Your task to perform on an android device: toggle javascript in the chrome app Image 0: 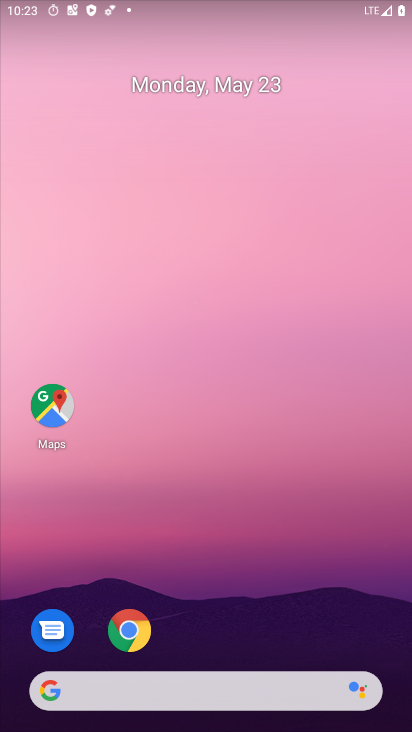
Step 0: click (131, 636)
Your task to perform on an android device: toggle javascript in the chrome app Image 1: 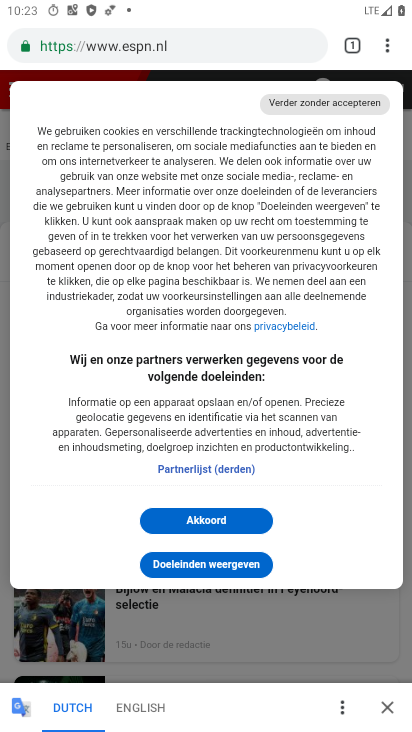
Step 1: click (384, 49)
Your task to perform on an android device: toggle javascript in the chrome app Image 2: 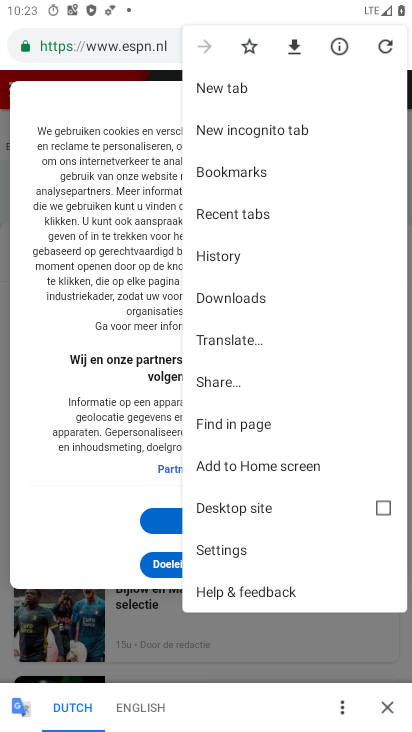
Step 2: click (224, 556)
Your task to perform on an android device: toggle javascript in the chrome app Image 3: 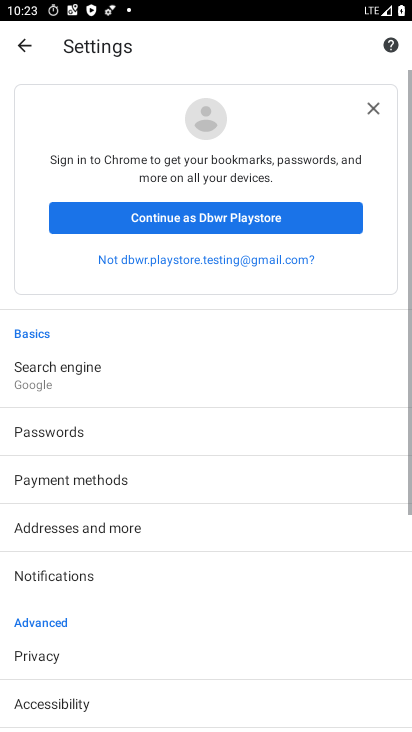
Step 3: drag from (166, 659) to (149, 201)
Your task to perform on an android device: toggle javascript in the chrome app Image 4: 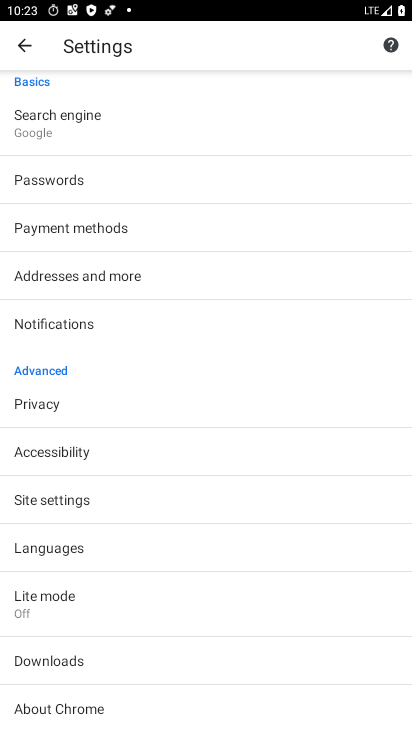
Step 4: click (70, 494)
Your task to perform on an android device: toggle javascript in the chrome app Image 5: 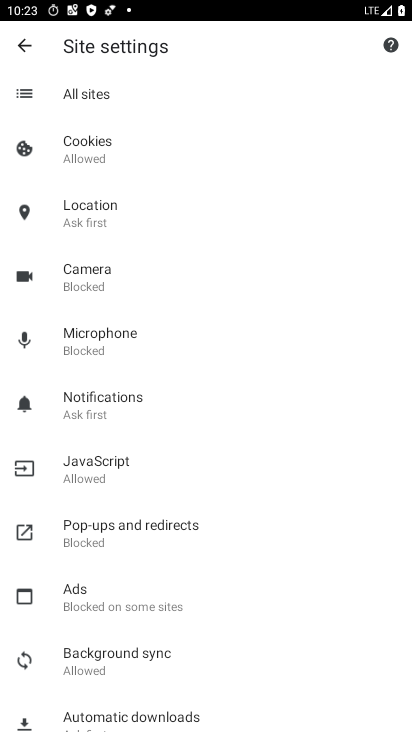
Step 5: click (89, 470)
Your task to perform on an android device: toggle javascript in the chrome app Image 6: 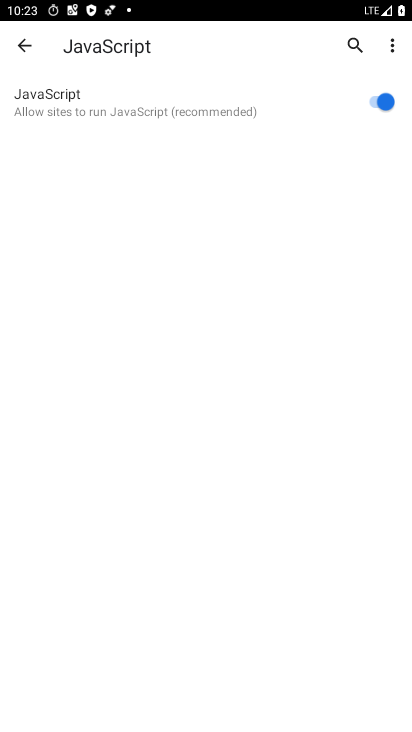
Step 6: click (380, 98)
Your task to perform on an android device: toggle javascript in the chrome app Image 7: 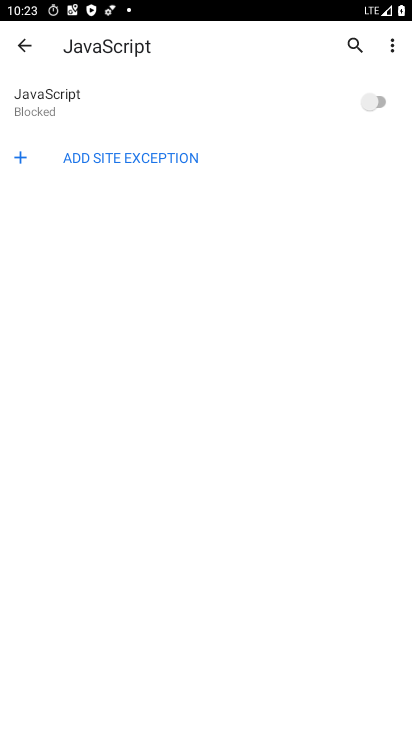
Step 7: task complete